Your task to perform on an android device: turn notification dots off Image 0: 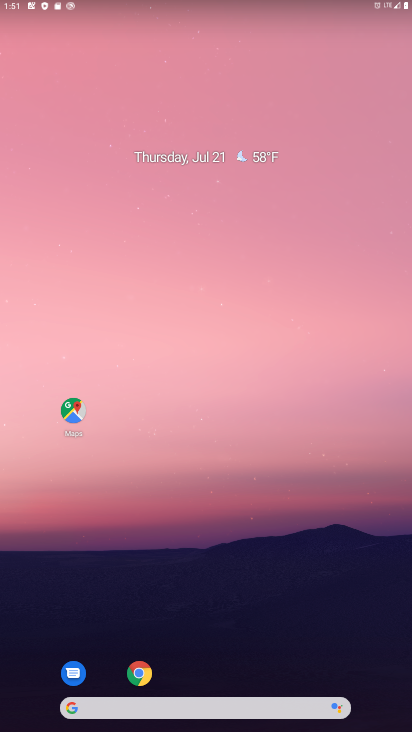
Step 0: drag from (215, 658) to (209, 276)
Your task to perform on an android device: turn notification dots off Image 1: 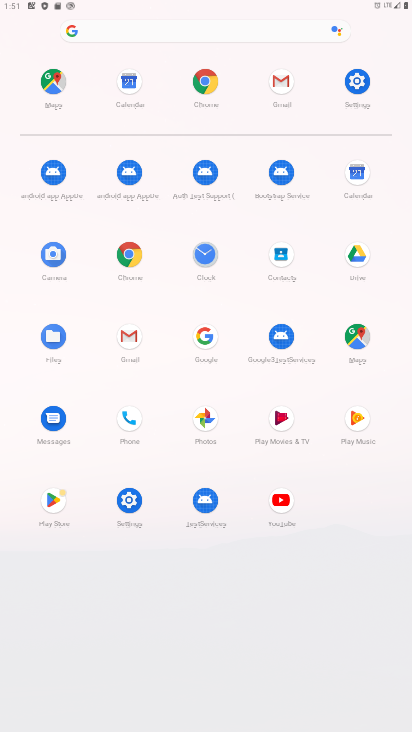
Step 1: click (359, 74)
Your task to perform on an android device: turn notification dots off Image 2: 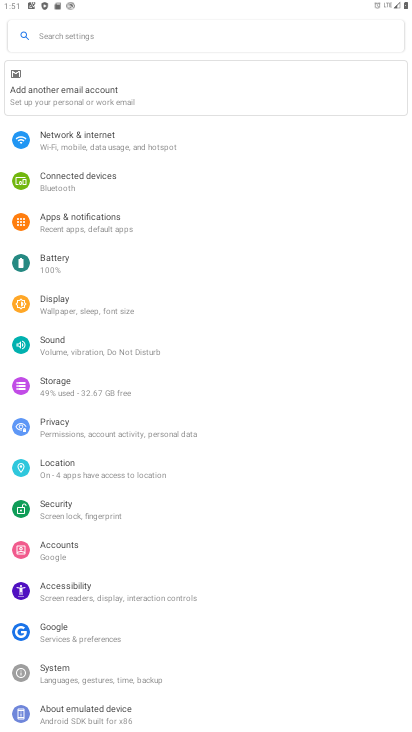
Step 2: click (179, 31)
Your task to perform on an android device: turn notification dots off Image 3: 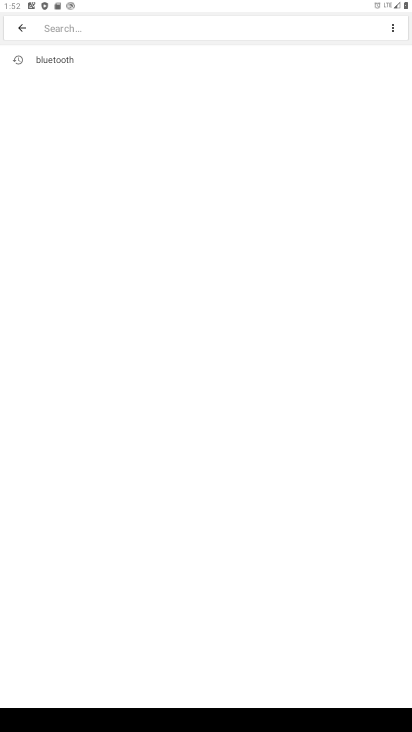
Step 3: type "notification dots "
Your task to perform on an android device: turn notification dots off Image 4: 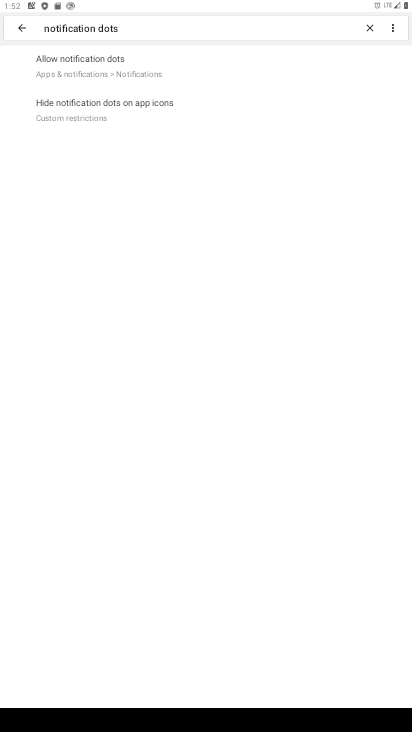
Step 4: click (112, 58)
Your task to perform on an android device: turn notification dots off Image 5: 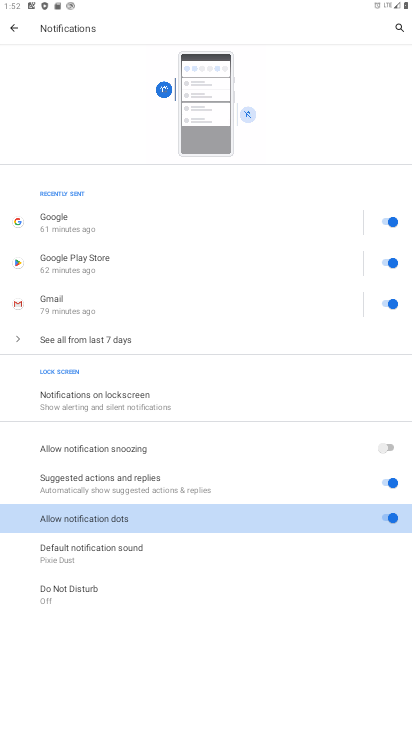
Step 5: click (394, 521)
Your task to perform on an android device: turn notification dots off Image 6: 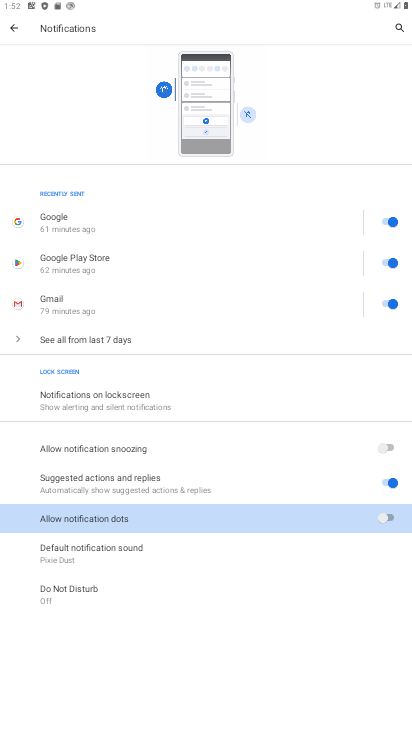
Step 6: task complete